Your task to perform on an android device: turn off notifications settings in the gmail app Image 0: 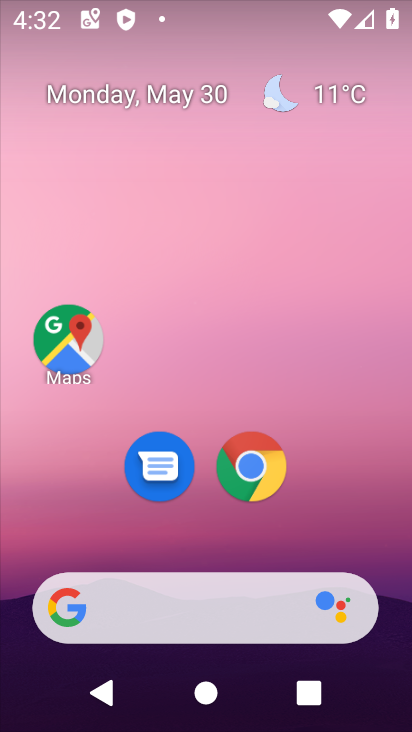
Step 0: drag from (361, 492) to (163, 62)
Your task to perform on an android device: turn off notifications settings in the gmail app Image 1: 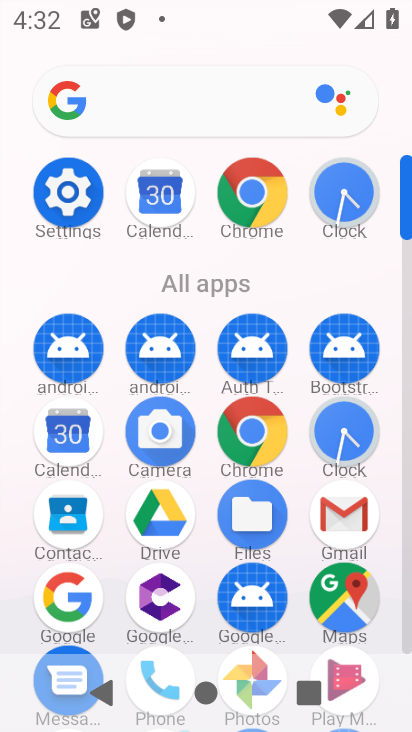
Step 1: click (333, 531)
Your task to perform on an android device: turn off notifications settings in the gmail app Image 2: 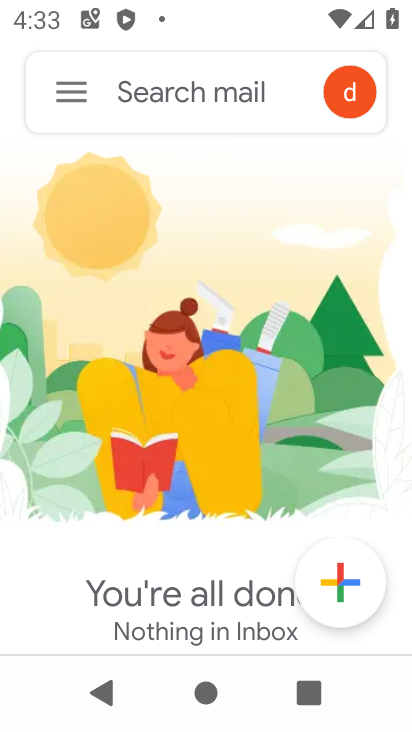
Step 2: click (88, 80)
Your task to perform on an android device: turn off notifications settings in the gmail app Image 3: 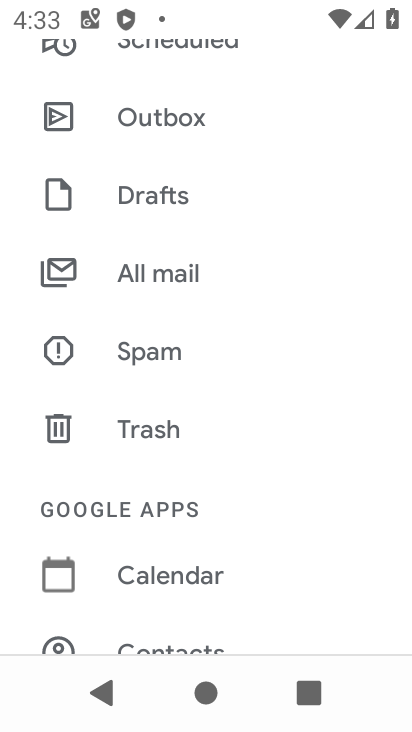
Step 3: drag from (250, 542) to (280, 11)
Your task to perform on an android device: turn off notifications settings in the gmail app Image 4: 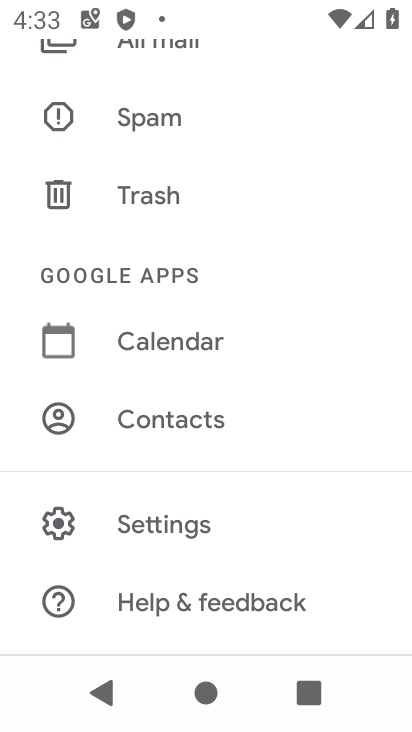
Step 4: click (172, 519)
Your task to perform on an android device: turn off notifications settings in the gmail app Image 5: 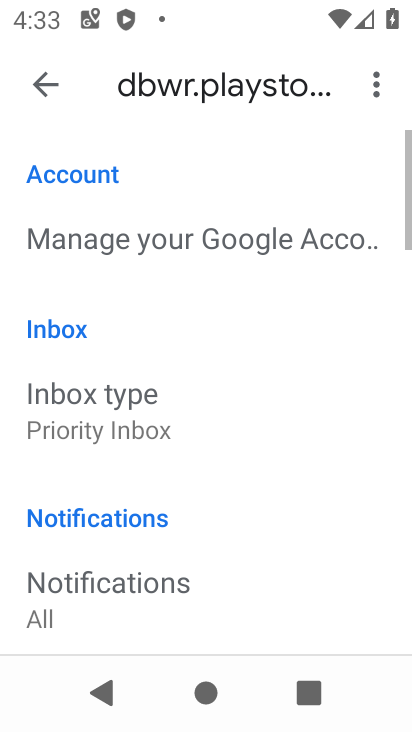
Step 5: drag from (181, 544) to (187, 127)
Your task to perform on an android device: turn off notifications settings in the gmail app Image 6: 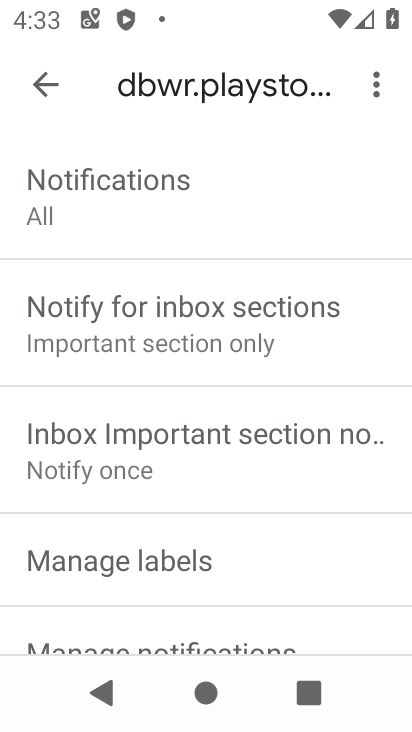
Step 6: drag from (221, 527) to (260, 197)
Your task to perform on an android device: turn off notifications settings in the gmail app Image 7: 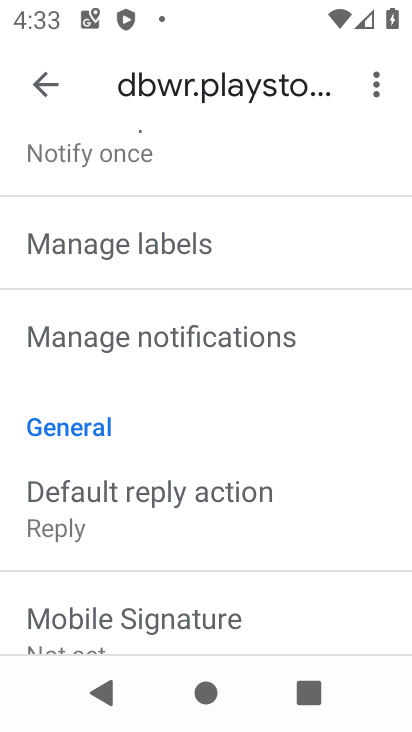
Step 7: click (212, 349)
Your task to perform on an android device: turn off notifications settings in the gmail app Image 8: 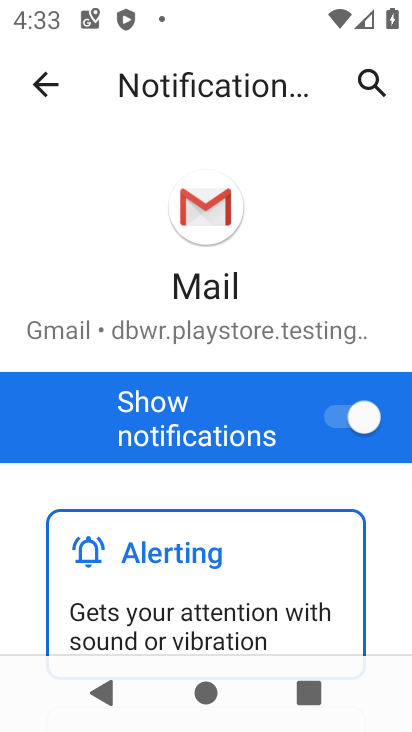
Step 8: drag from (273, 565) to (288, 116)
Your task to perform on an android device: turn off notifications settings in the gmail app Image 9: 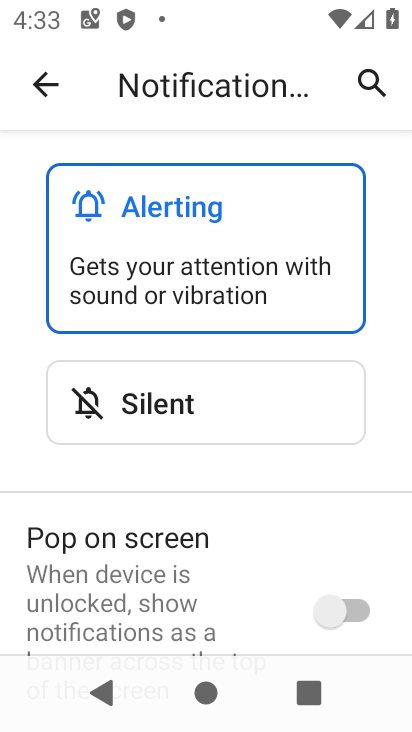
Step 9: drag from (215, 266) to (258, 583)
Your task to perform on an android device: turn off notifications settings in the gmail app Image 10: 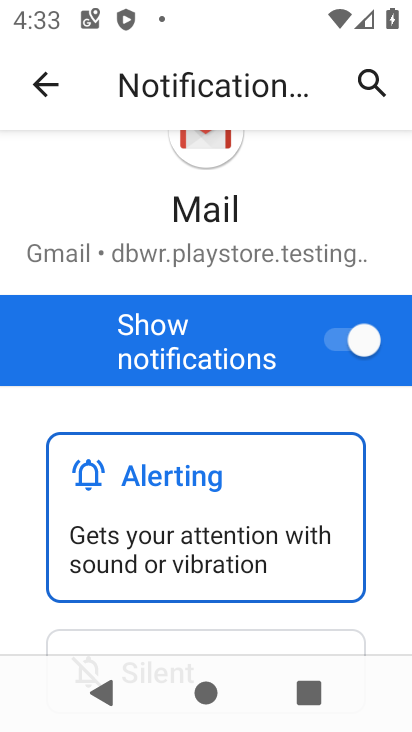
Step 10: click (336, 327)
Your task to perform on an android device: turn off notifications settings in the gmail app Image 11: 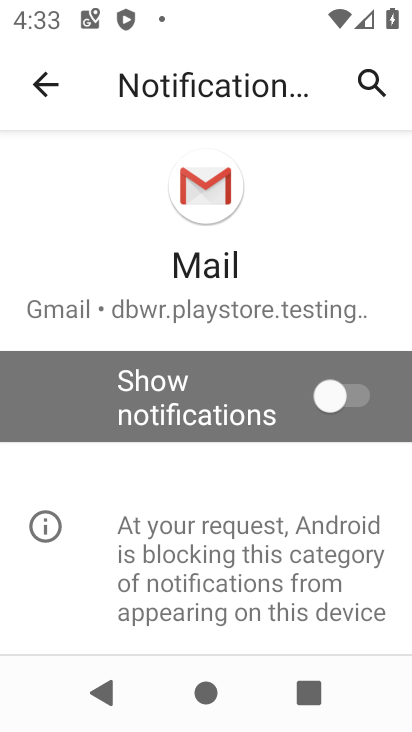
Step 11: task complete